Your task to perform on an android device: turn off wifi Image 0: 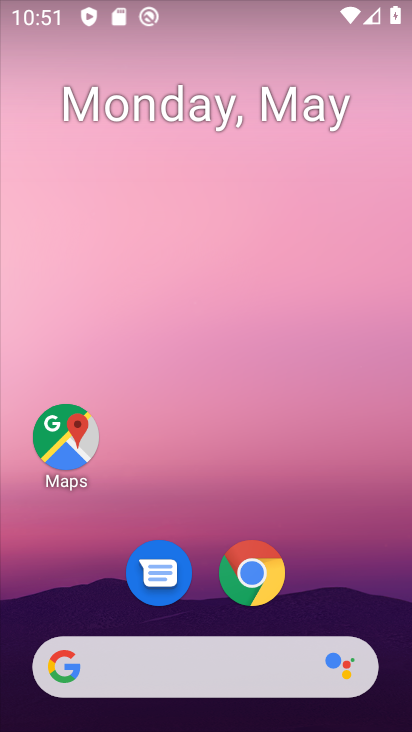
Step 0: drag from (219, 634) to (250, 168)
Your task to perform on an android device: turn off wifi Image 1: 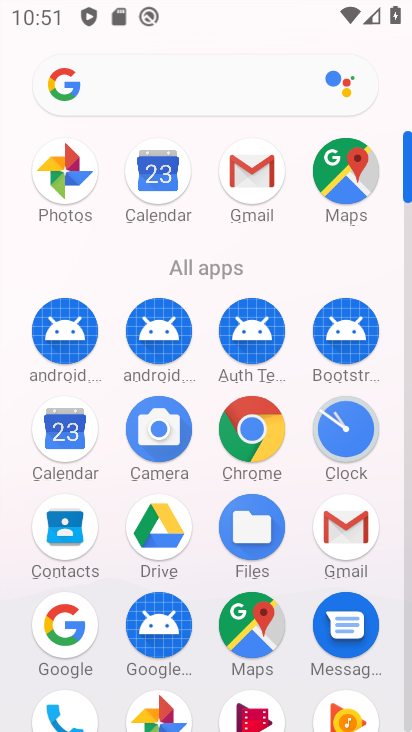
Step 1: click (141, 139)
Your task to perform on an android device: turn off wifi Image 2: 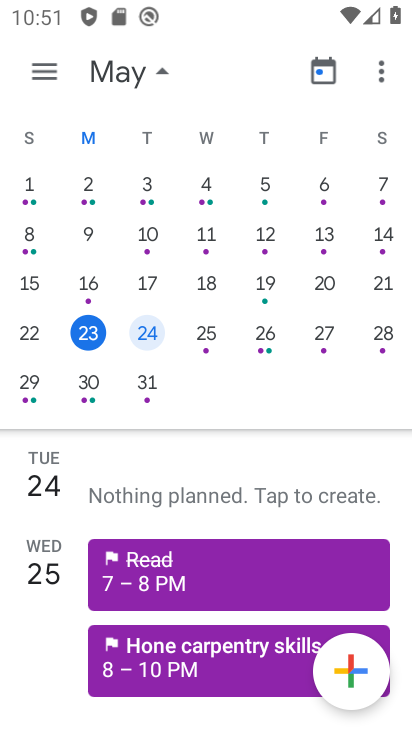
Step 2: press back button
Your task to perform on an android device: turn off wifi Image 3: 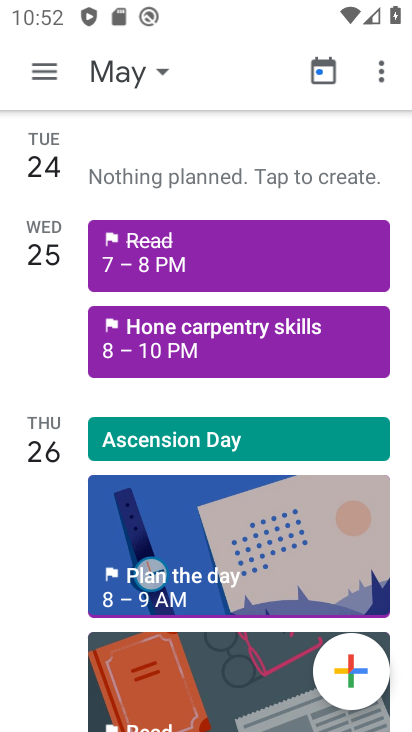
Step 3: press home button
Your task to perform on an android device: turn off wifi Image 4: 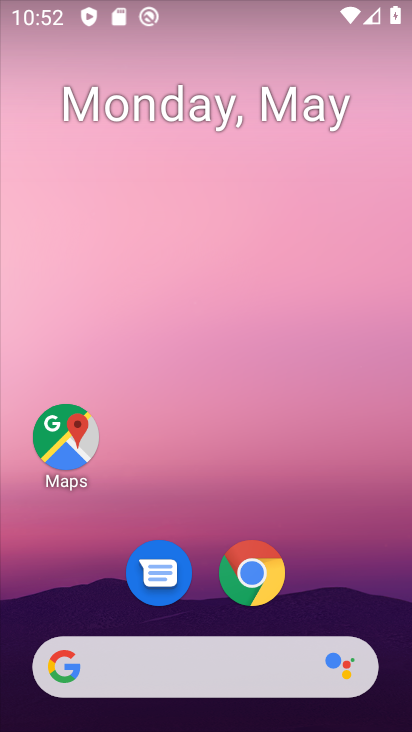
Step 4: drag from (219, 639) to (326, 8)
Your task to perform on an android device: turn off wifi Image 5: 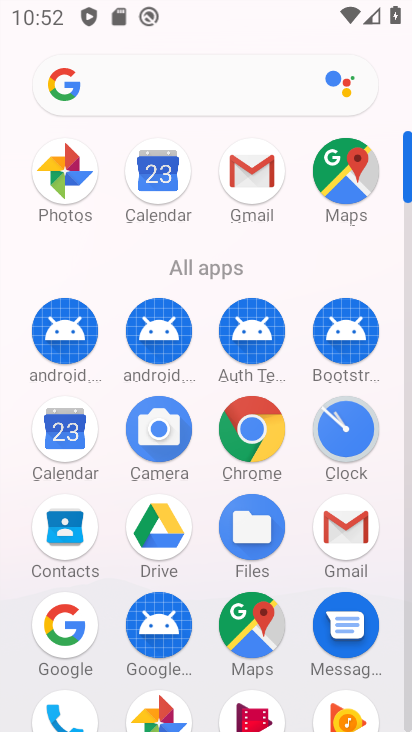
Step 5: drag from (121, 573) to (112, 176)
Your task to perform on an android device: turn off wifi Image 6: 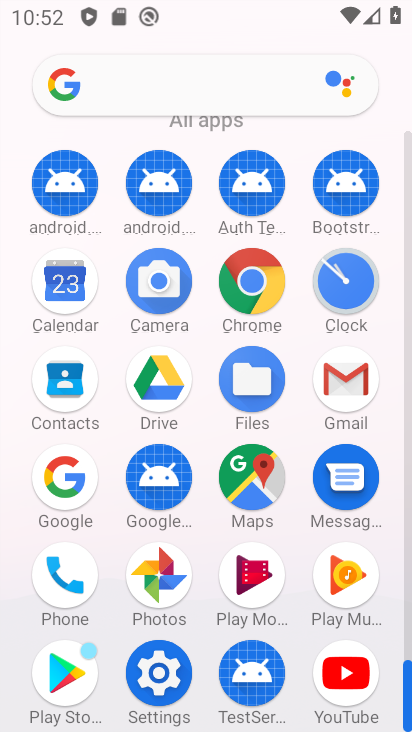
Step 6: click (158, 676)
Your task to perform on an android device: turn off wifi Image 7: 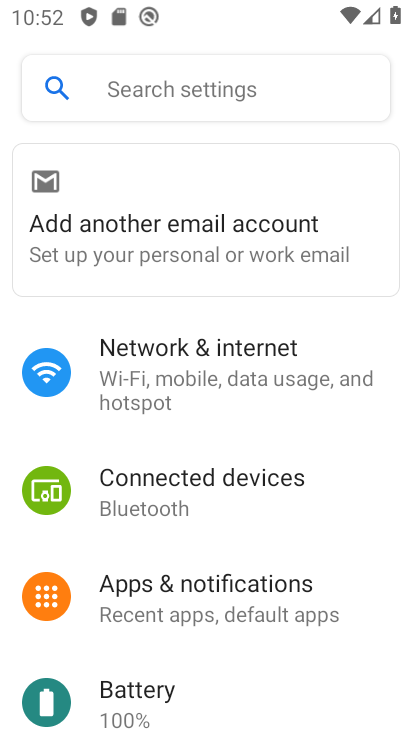
Step 7: click (224, 387)
Your task to perform on an android device: turn off wifi Image 8: 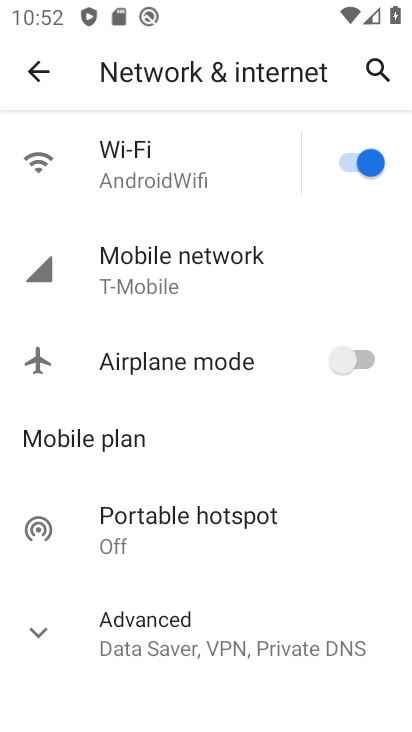
Step 8: click (343, 163)
Your task to perform on an android device: turn off wifi Image 9: 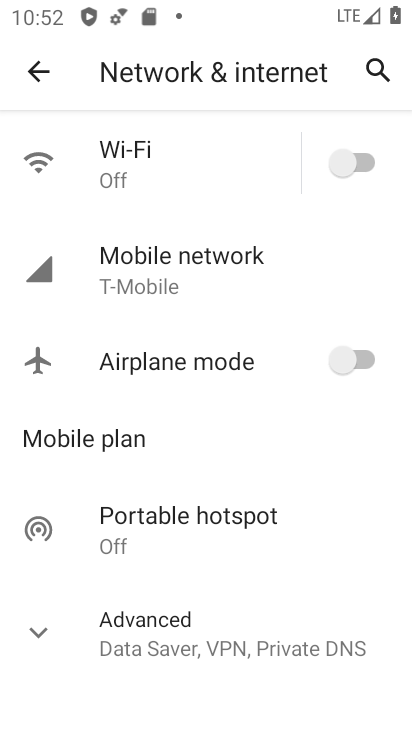
Step 9: task complete